Your task to perform on an android device: Open Google Chrome and open the bookmarks view Image 0: 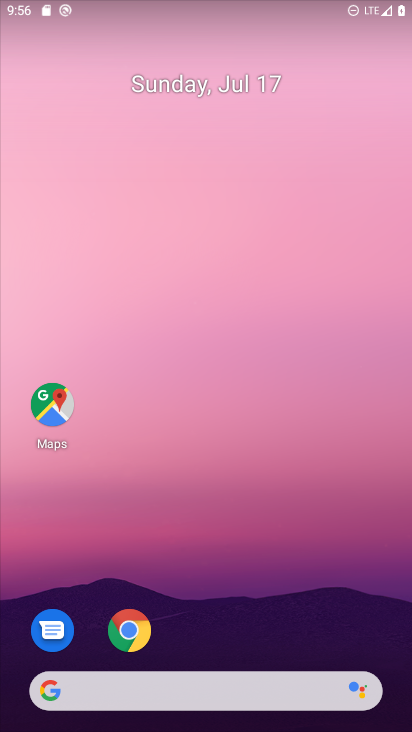
Step 0: drag from (387, 670) to (181, 0)
Your task to perform on an android device: Open Google Chrome and open the bookmarks view Image 1: 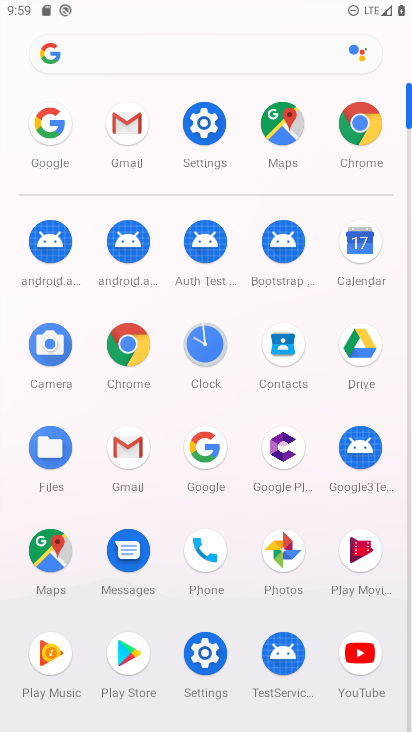
Step 1: click (132, 338)
Your task to perform on an android device: Open Google Chrome and open the bookmarks view Image 2: 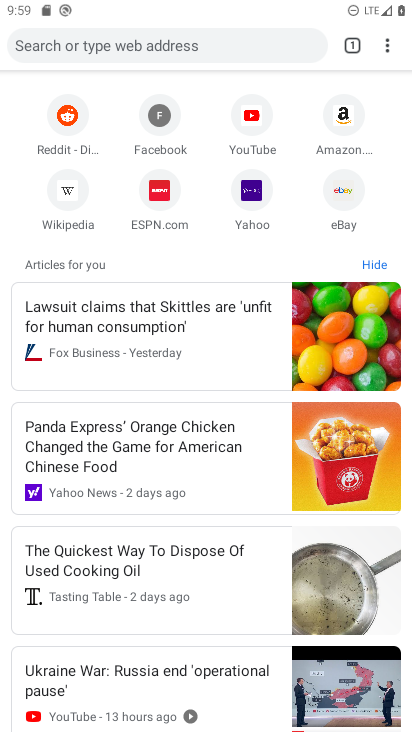
Step 2: click (388, 39)
Your task to perform on an android device: Open Google Chrome and open the bookmarks view Image 3: 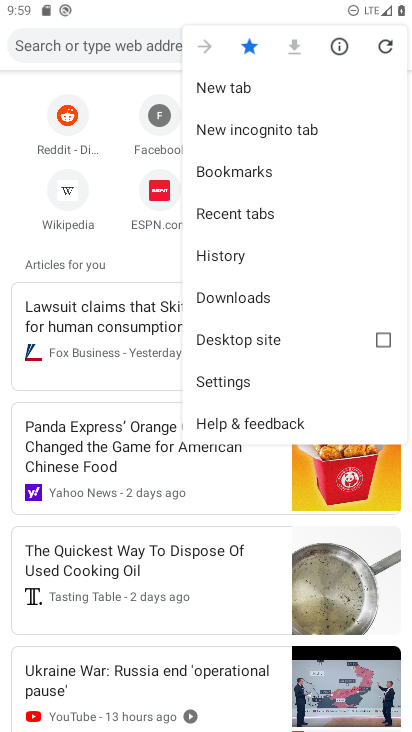
Step 3: click (261, 179)
Your task to perform on an android device: Open Google Chrome and open the bookmarks view Image 4: 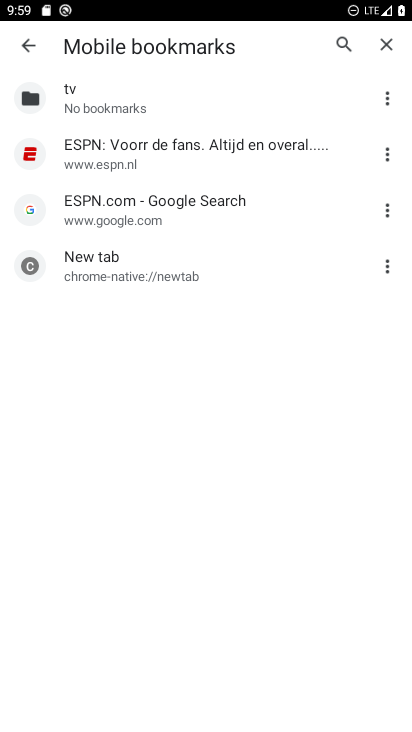
Step 4: task complete